Your task to perform on an android device: Go to privacy settings Image 0: 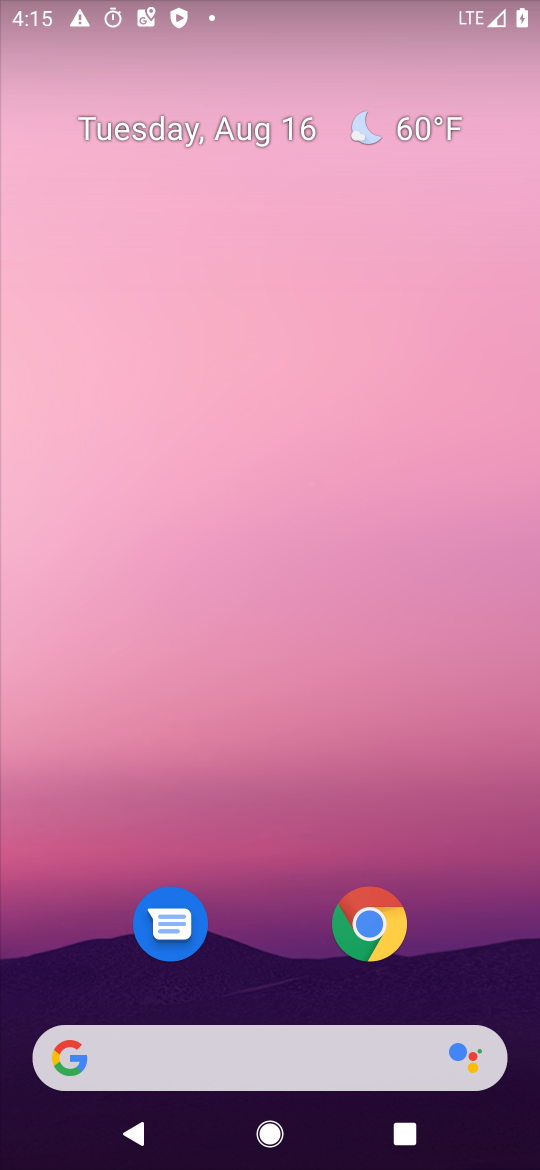
Step 0: drag from (199, 960) to (363, 289)
Your task to perform on an android device: Go to privacy settings Image 1: 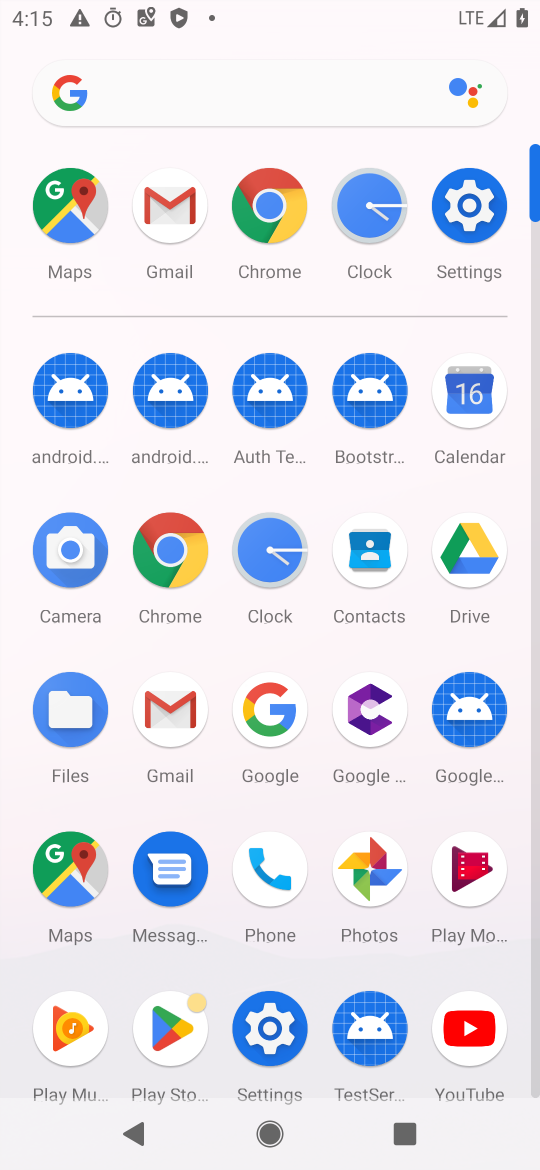
Step 1: click (500, 197)
Your task to perform on an android device: Go to privacy settings Image 2: 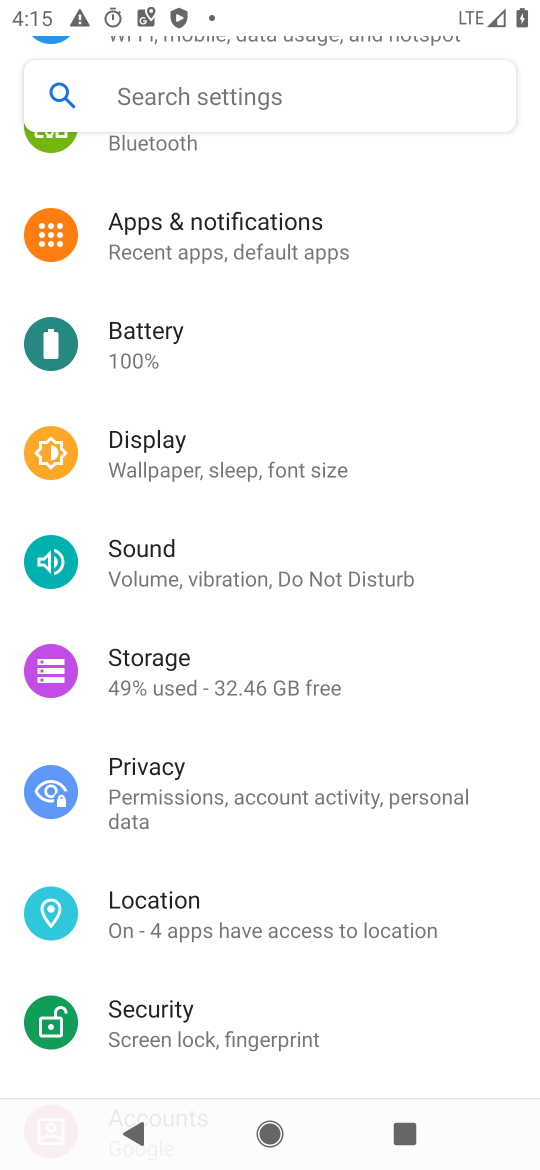
Step 2: click (214, 795)
Your task to perform on an android device: Go to privacy settings Image 3: 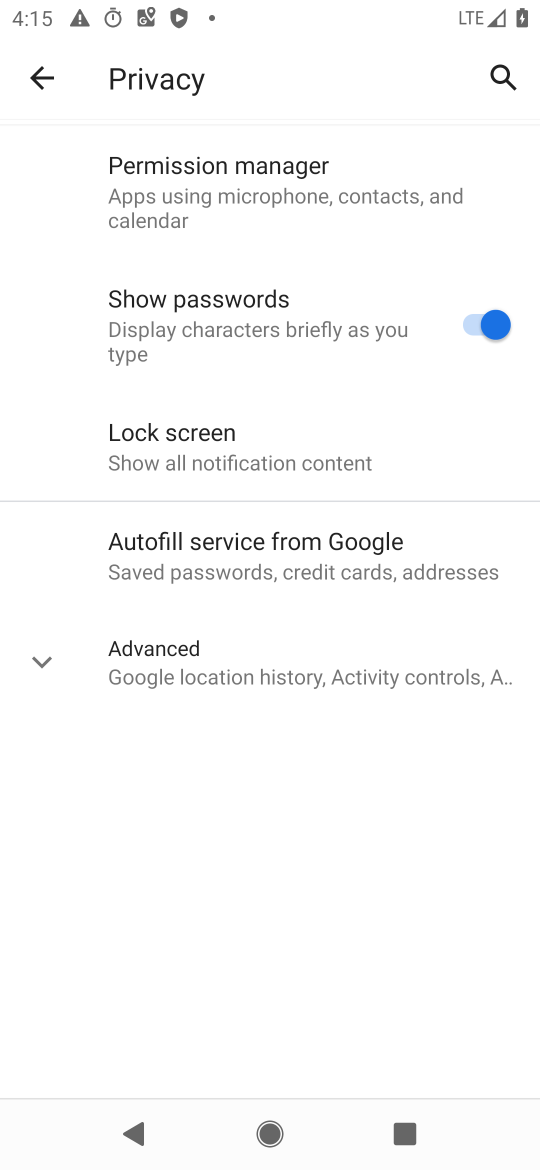
Step 3: task complete